Your task to perform on an android device: turn notification dots off Image 0: 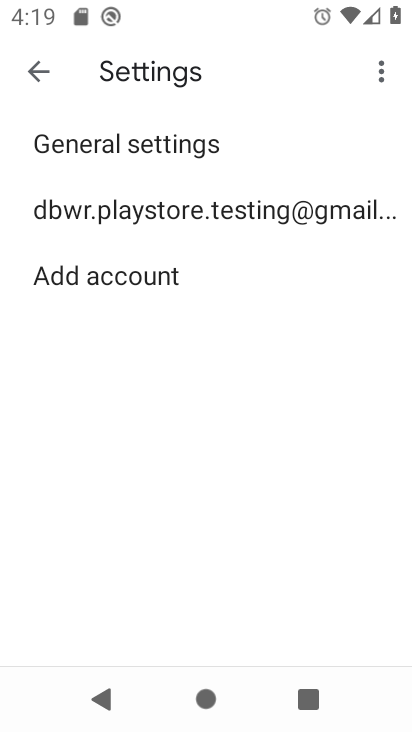
Step 0: press home button
Your task to perform on an android device: turn notification dots off Image 1: 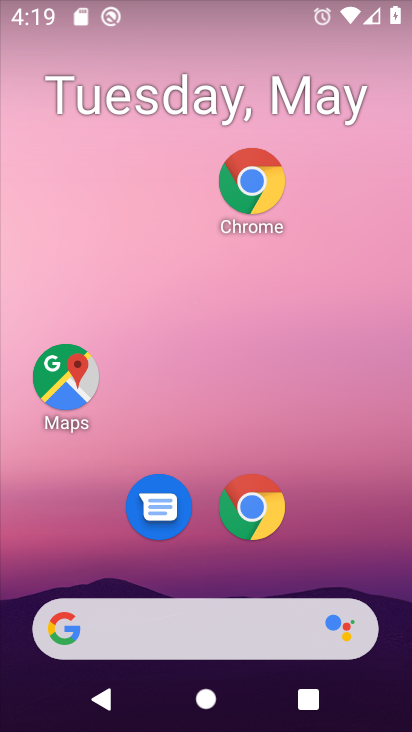
Step 1: drag from (357, 531) to (347, 91)
Your task to perform on an android device: turn notification dots off Image 2: 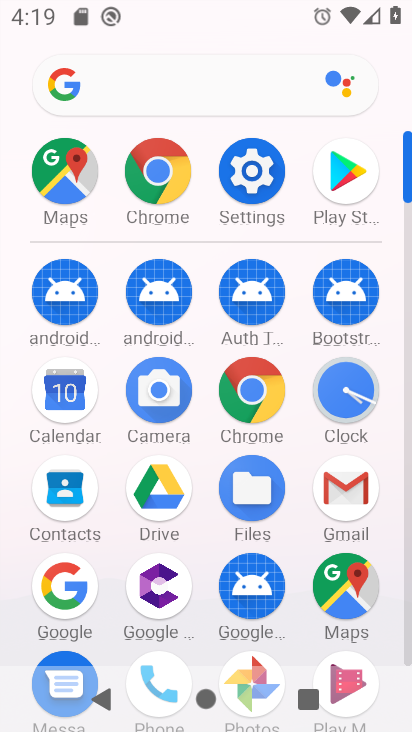
Step 2: click (261, 191)
Your task to perform on an android device: turn notification dots off Image 3: 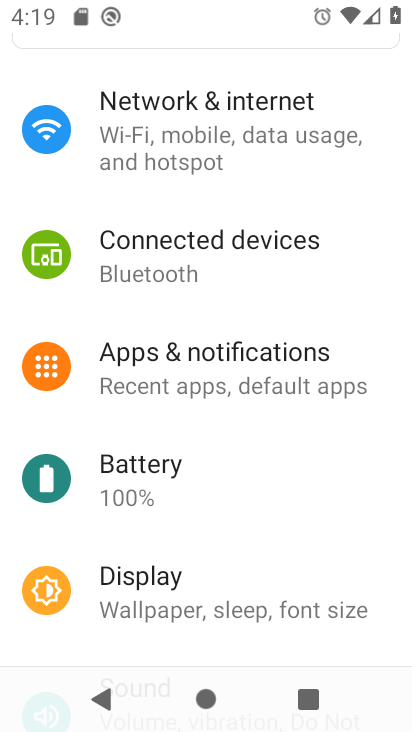
Step 3: click (252, 379)
Your task to perform on an android device: turn notification dots off Image 4: 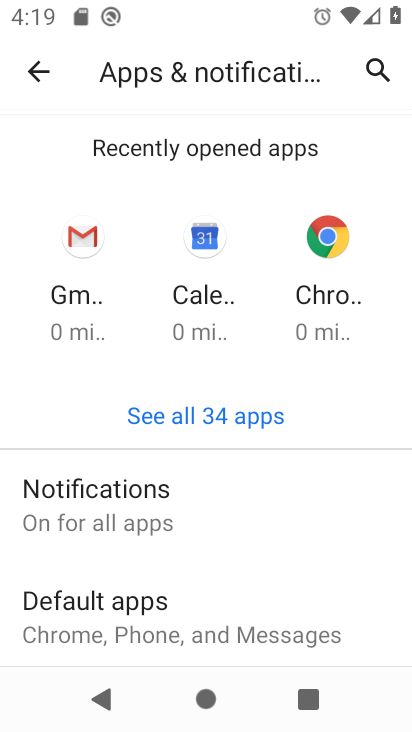
Step 4: click (106, 522)
Your task to perform on an android device: turn notification dots off Image 5: 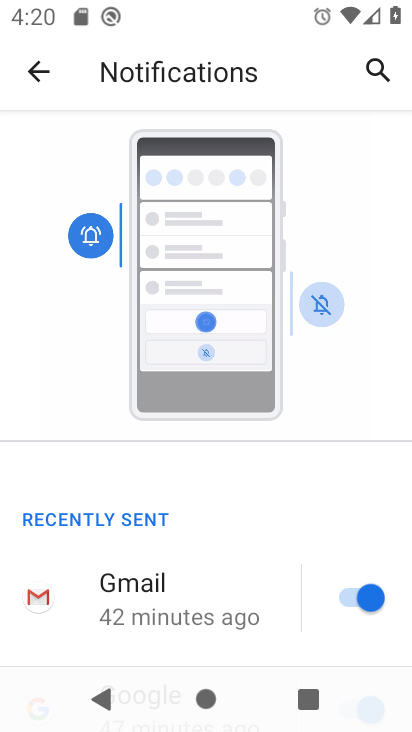
Step 5: drag from (227, 638) to (240, 208)
Your task to perform on an android device: turn notification dots off Image 6: 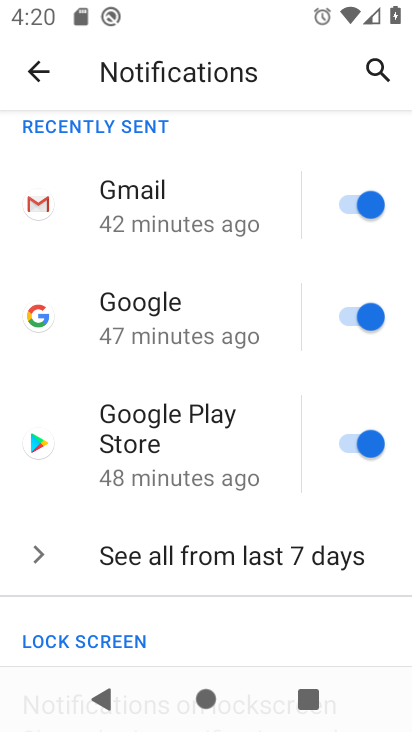
Step 6: drag from (213, 532) to (261, 189)
Your task to perform on an android device: turn notification dots off Image 7: 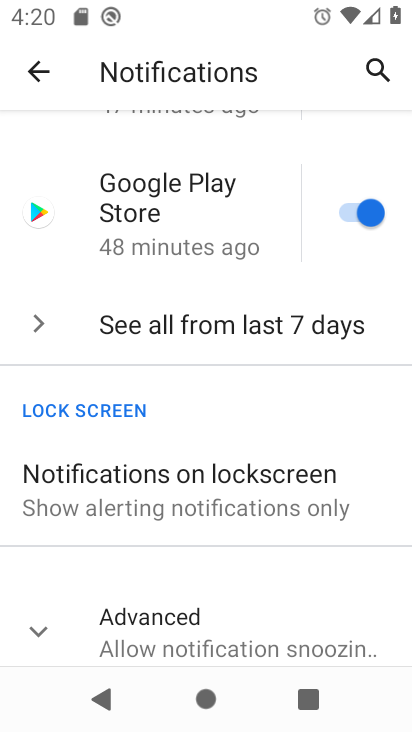
Step 7: drag from (271, 578) to (301, 332)
Your task to perform on an android device: turn notification dots off Image 8: 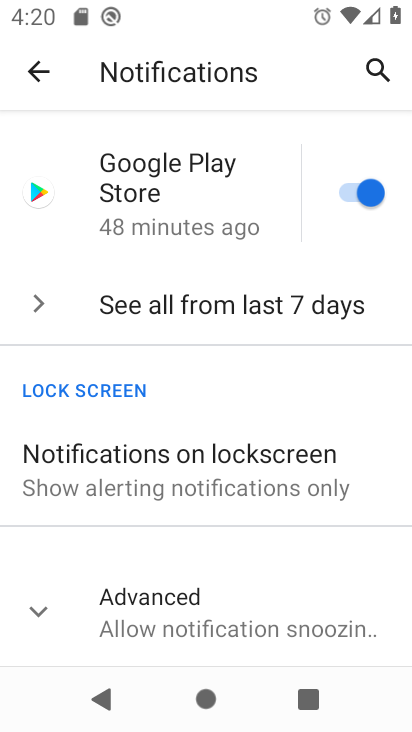
Step 8: drag from (231, 611) to (232, 398)
Your task to perform on an android device: turn notification dots off Image 9: 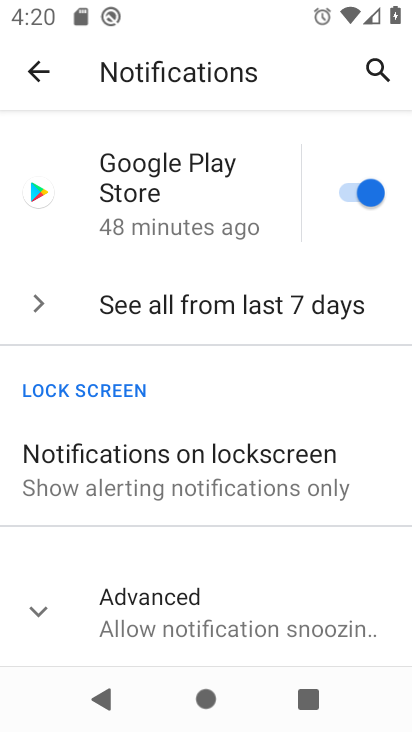
Step 9: click (212, 611)
Your task to perform on an android device: turn notification dots off Image 10: 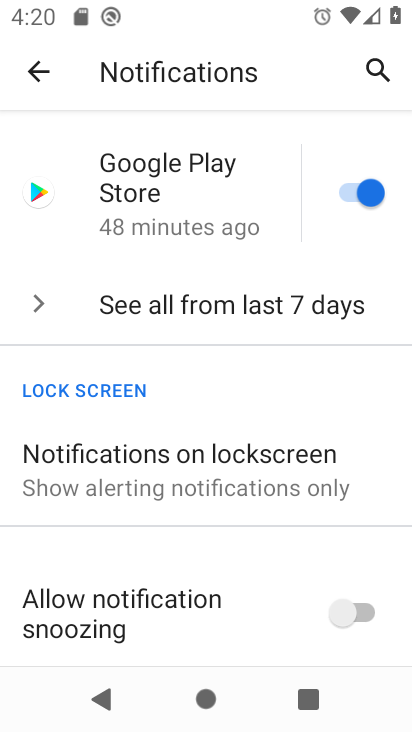
Step 10: drag from (215, 605) to (232, 230)
Your task to perform on an android device: turn notification dots off Image 11: 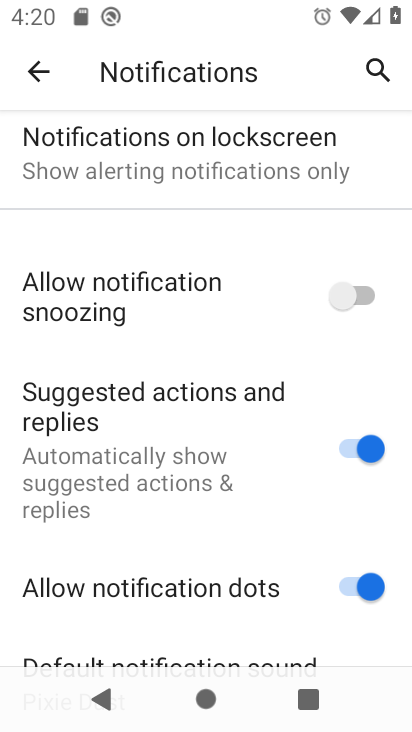
Step 11: drag from (243, 595) to (311, 264)
Your task to perform on an android device: turn notification dots off Image 12: 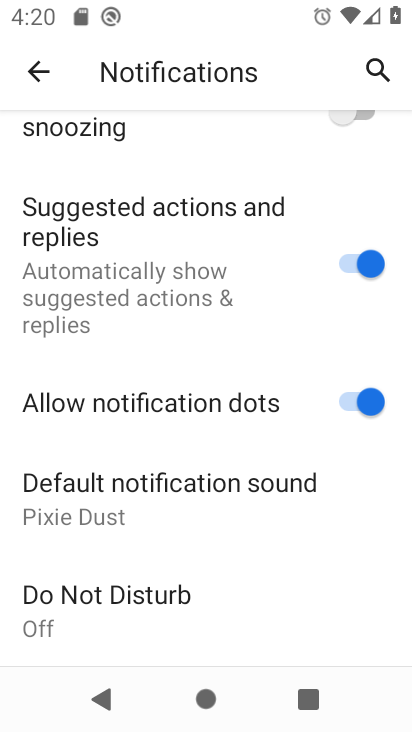
Step 12: drag from (265, 553) to (308, 289)
Your task to perform on an android device: turn notification dots off Image 13: 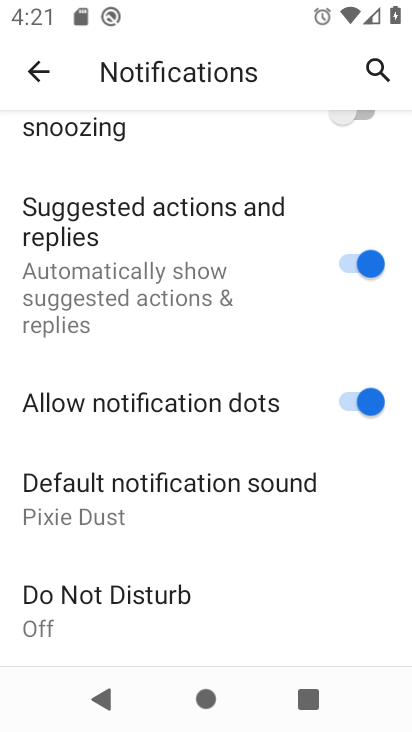
Step 13: drag from (225, 596) to (277, 228)
Your task to perform on an android device: turn notification dots off Image 14: 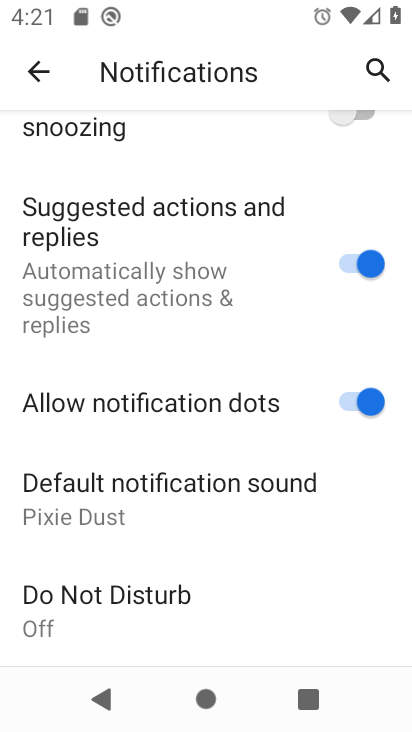
Step 14: drag from (230, 621) to (265, 266)
Your task to perform on an android device: turn notification dots off Image 15: 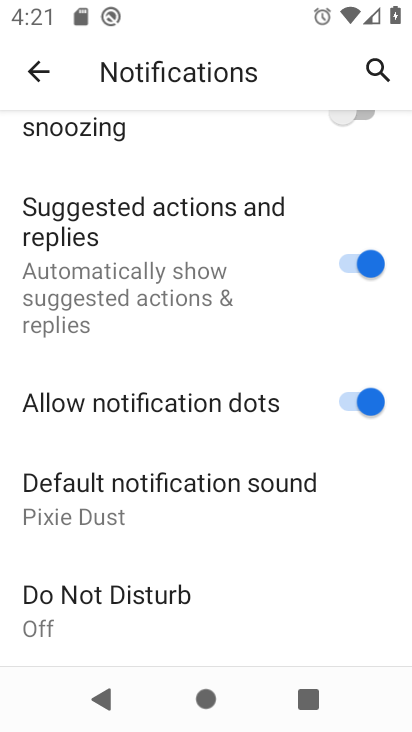
Step 15: click (366, 392)
Your task to perform on an android device: turn notification dots off Image 16: 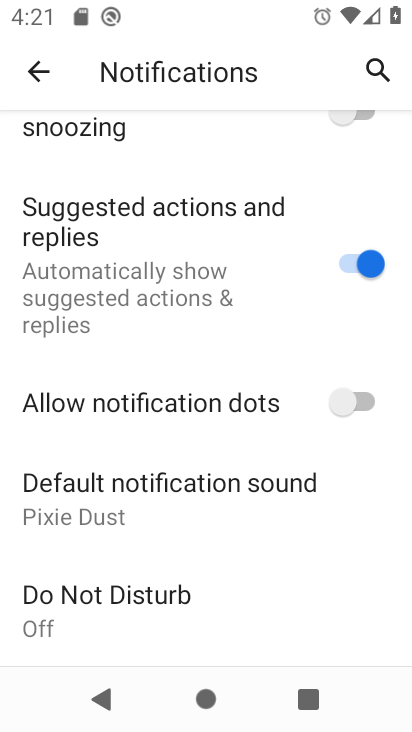
Step 16: task complete